Your task to perform on an android device: turn on showing notifications on the lock screen Image 0: 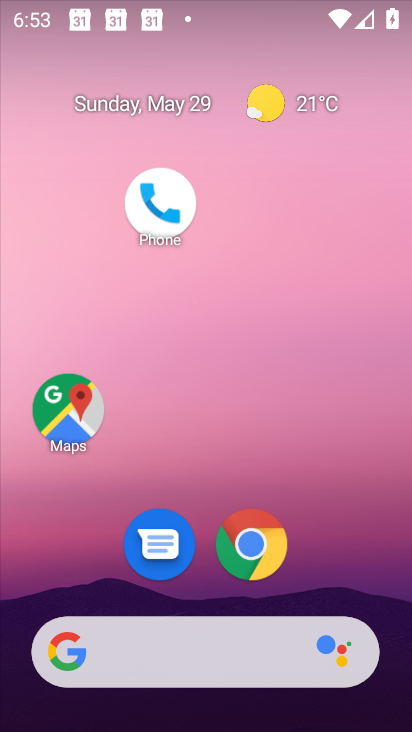
Step 0: drag from (335, 560) to (226, 79)
Your task to perform on an android device: turn on showing notifications on the lock screen Image 1: 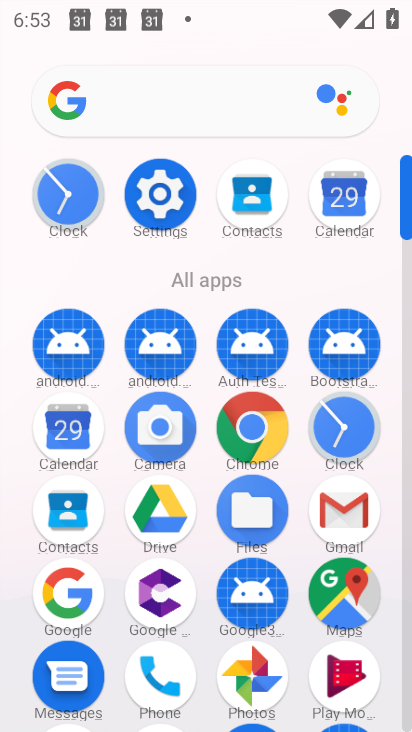
Step 1: click (151, 210)
Your task to perform on an android device: turn on showing notifications on the lock screen Image 2: 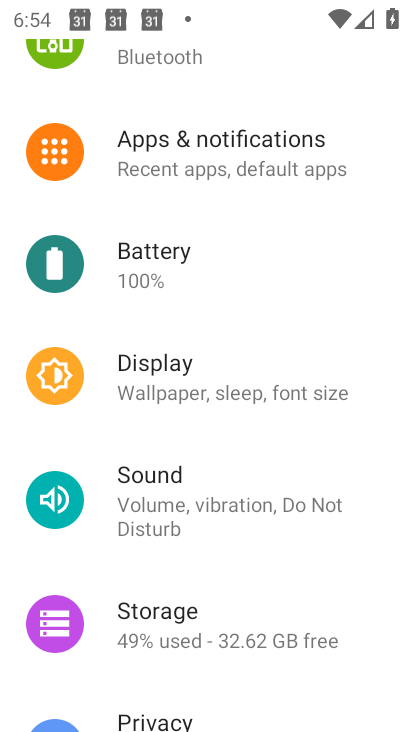
Step 2: click (183, 139)
Your task to perform on an android device: turn on showing notifications on the lock screen Image 3: 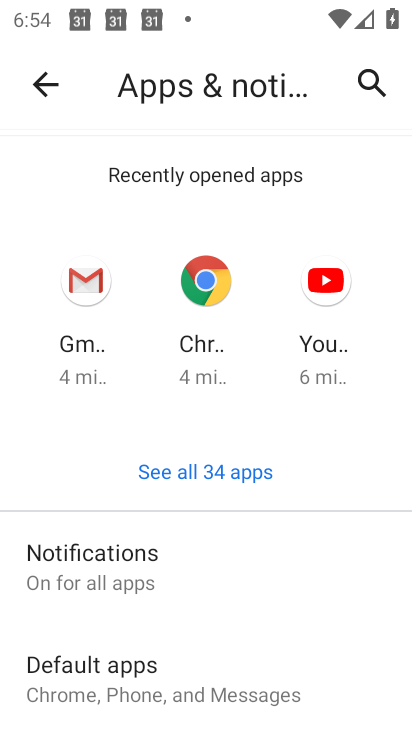
Step 3: click (118, 562)
Your task to perform on an android device: turn on showing notifications on the lock screen Image 4: 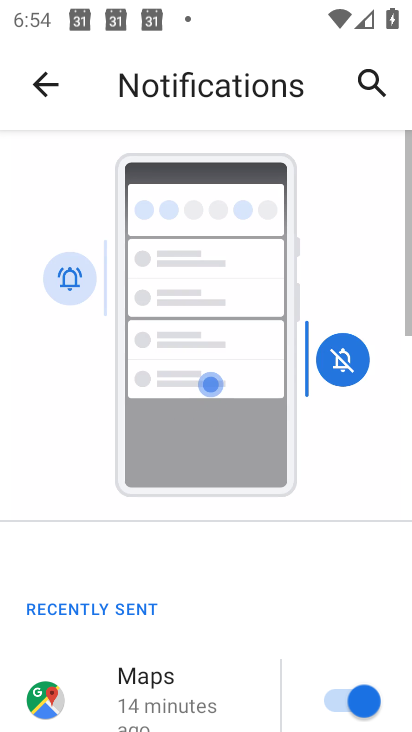
Step 4: drag from (249, 596) to (156, 182)
Your task to perform on an android device: turn on showing notifications on the lock screen Image 5: 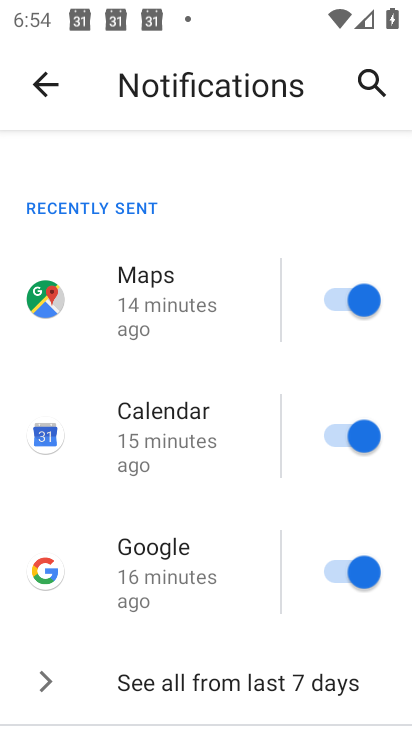
Step 5: drag from (231, 619) to (200, 170)
Your task to perform on an android device: turn on showing notifications on the lock screen Image 6: 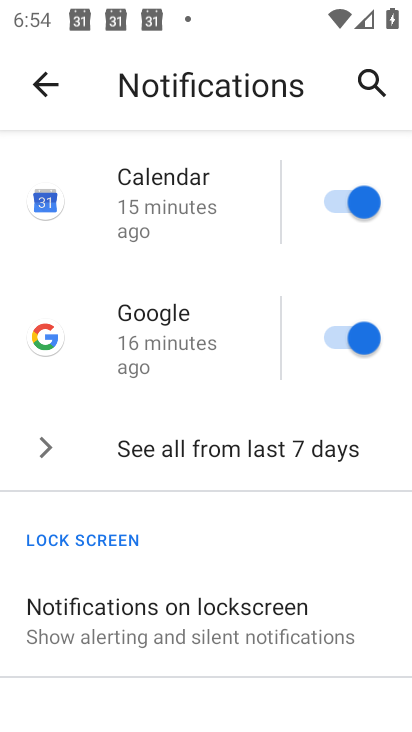
Step 6: click (164, 610)
Your task to perform on an android device: turn on showing notifications on the lock screen Image 7: 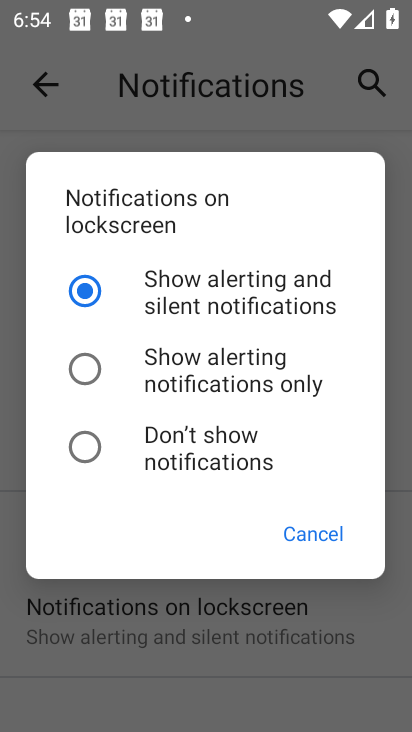
Step 7: click (164, 610)
Your task to perform on an android device: turn on showing notifications on the lock screen Image 8: 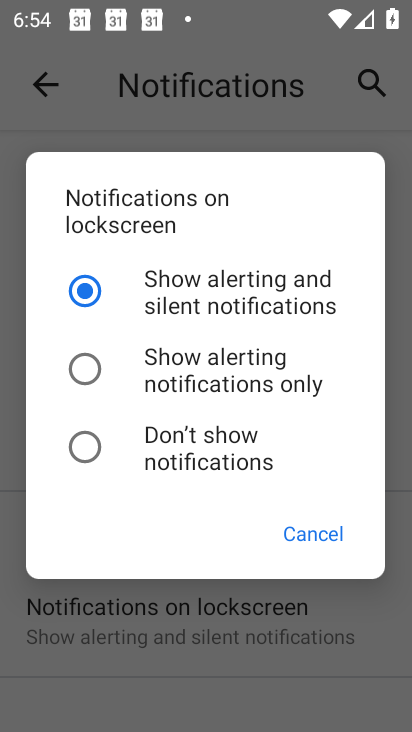
Step 8: task complete